Your task to perform on an android device: see creations saved in the google photos Image 0: 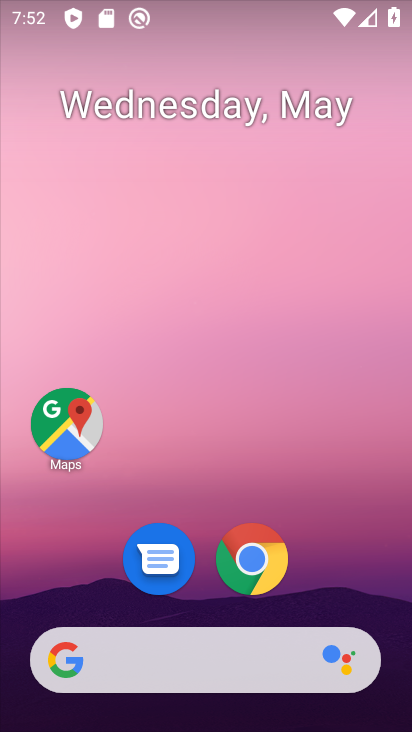
Step 0: drag from (196, 589) to (220, 94)
Your task to perform on an android device: see creations saved in the google photos Image 1: 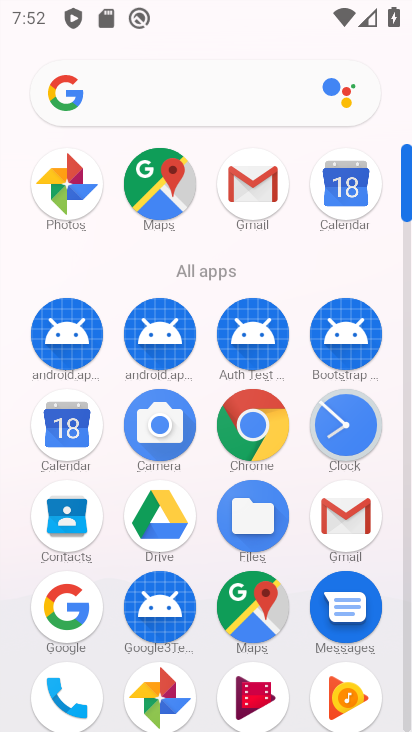
Step 1: click (72, 192)
Your task to perform on an android device: see creations saved in the google photos Image 2: 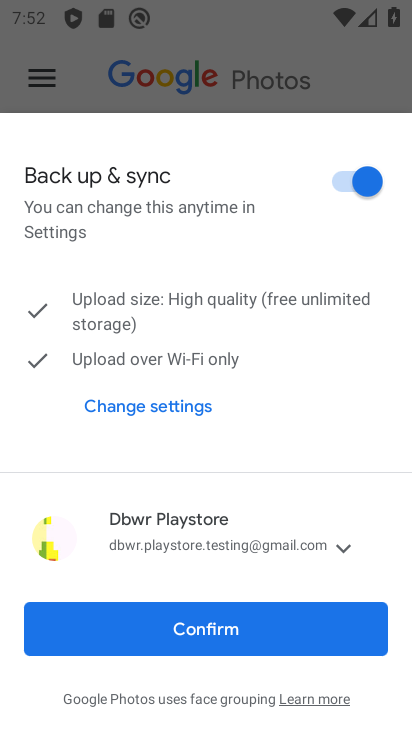
Step 2: click (191, 624)
Your task to perform on an android device: see creations saved in the google photos Image 3: 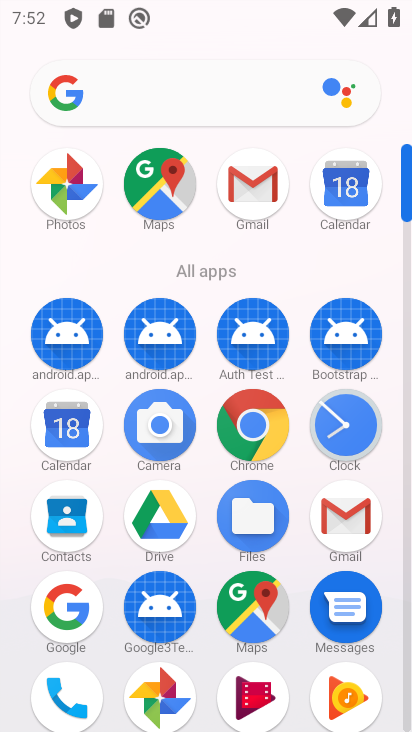
Step 3: click (63, 186)
Your task to perform on an android device: see creations saved in the google photos Image 4: 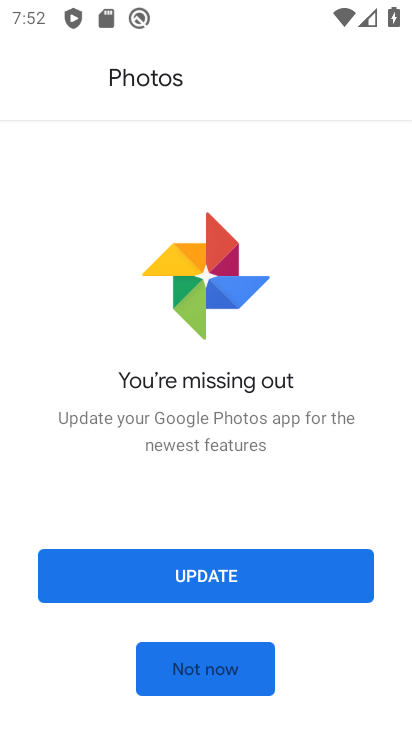
Step 4: click (190, 576)
Your task to perform on an android device: see creations saved in the google photos Image 5: 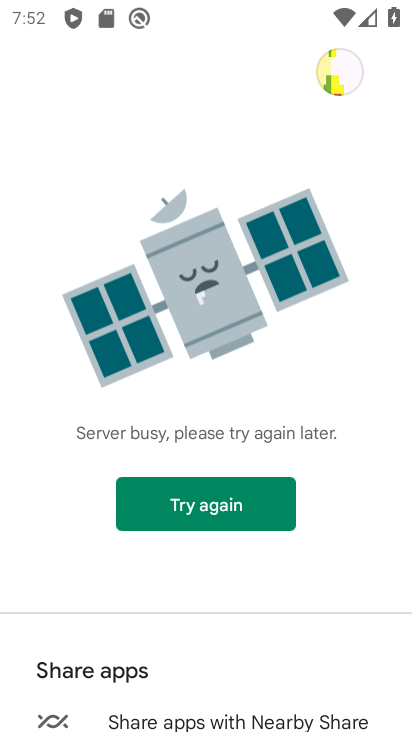
Step 5: task complete